Your task to perform on an android device: Search for sushi restaurants on Maps Image 0: 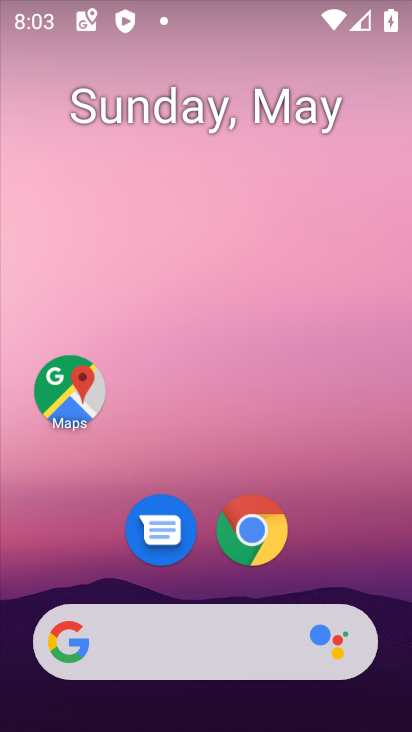
Step 0: click (70, 397)
Your task to perform on an android device: Search for sushi restaurants on Maps Image 1: 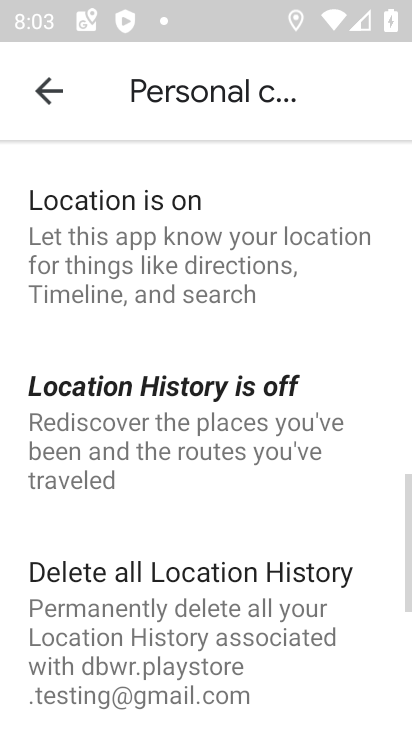
Step 1: click (44, 86)
Your task to perform on an android device: Search for sushi restaurants on Maps Image 2: 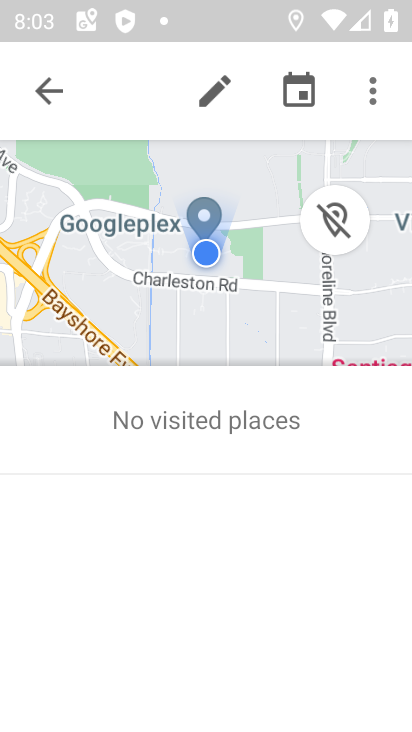
Step 2: click (43, 91)
Your task to perform on an android device: Search for sushi restaurants on Maps Image 3: 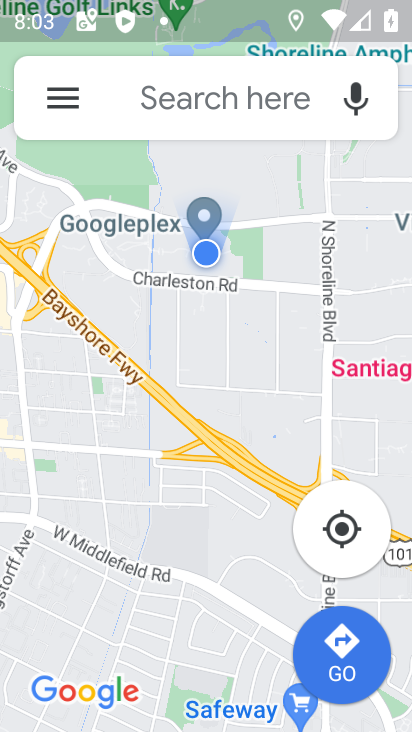
Step 3: click (151, 100)
Your task to perform on an android device: Search for sushi restaurants on Maps Image 4: 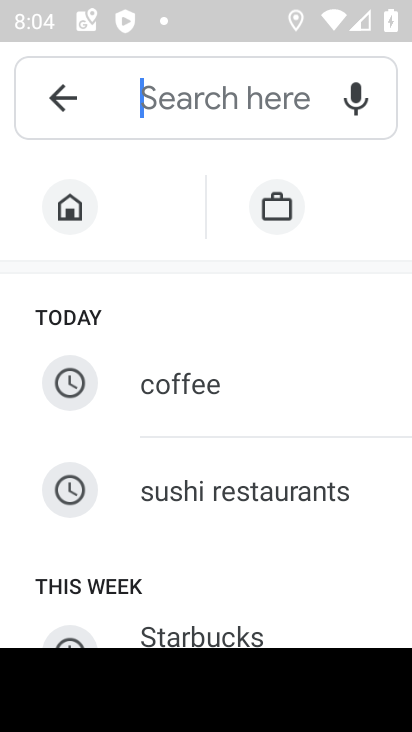
Step 4: type "sushi restaurants "
Your task to perform on an android device: Search for sushi restaurants on Maps Image 5: 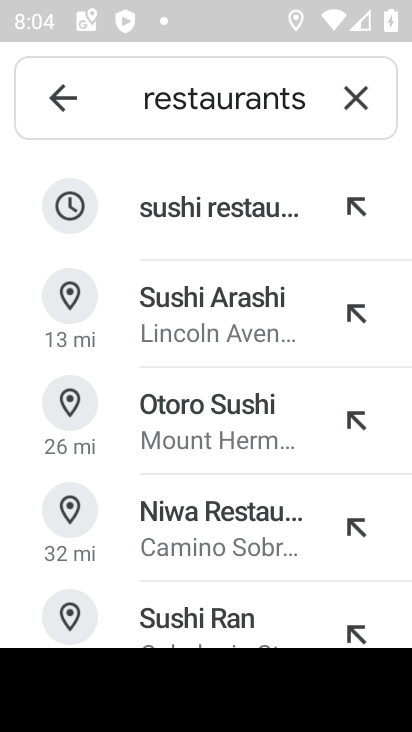
Step 5: click (228, 224)
Your task to perform on an android device: Search for sushi restaurants on Maps Image 6: 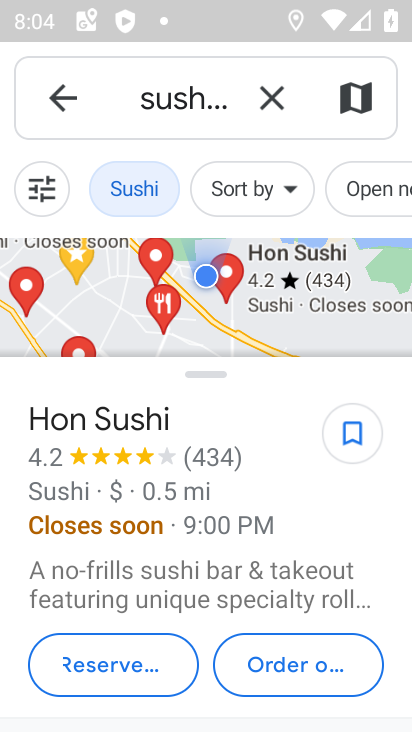
Step 6: task complete